Your task to perform on an android device: see creations saved in the google photos Image 0: 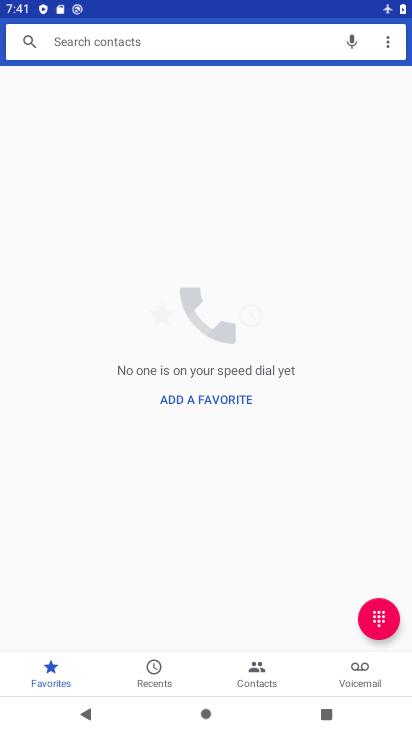
Step 0: press home button
Your task to perform on an android device: see creations saved in the google photos Image 1: 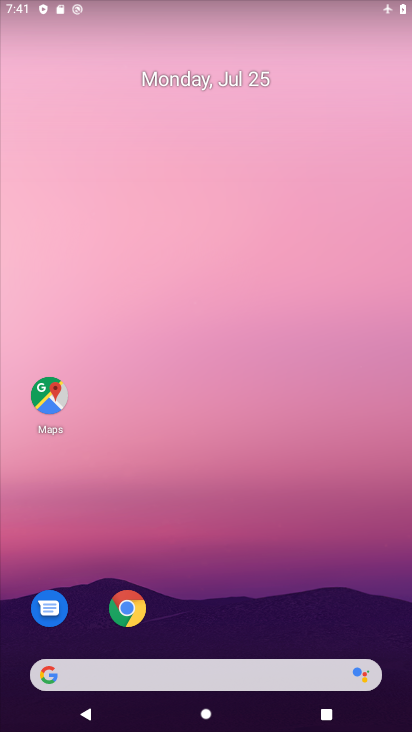
Step 1: drag from (303, 599) to (285, 65)
Your task to perform on an android device: see creations saved in the google photos Image 2: 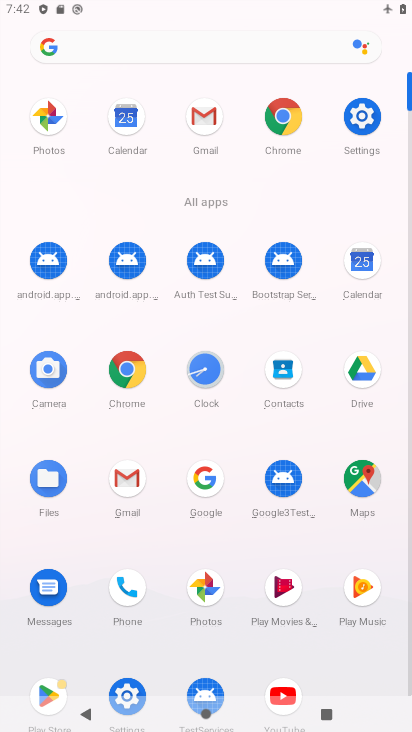
Step 2: click (204, 591)
Your task to perform on an android device: see creations saved in the google photos Image 3: 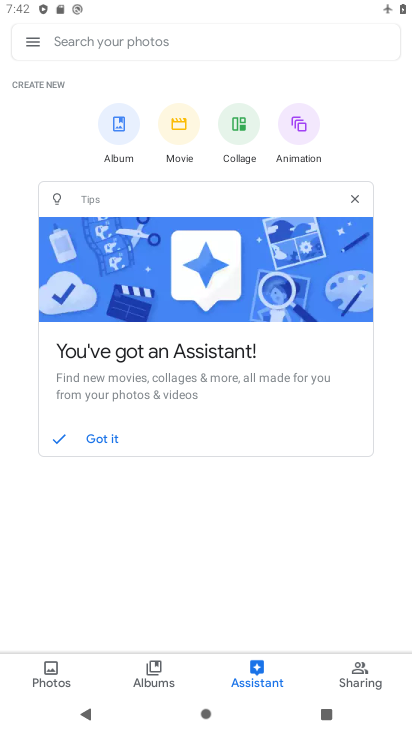
Step 3: click (145, 679)
Your task to perform on an android device: see creations saved in the google photos Image 4: 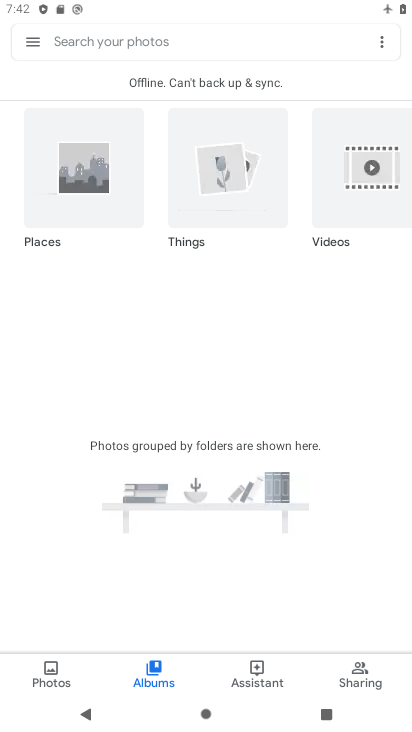
Step 4: click (40, 680)
Your task to perform on an android device: see creations saved in the google photos Image 5: 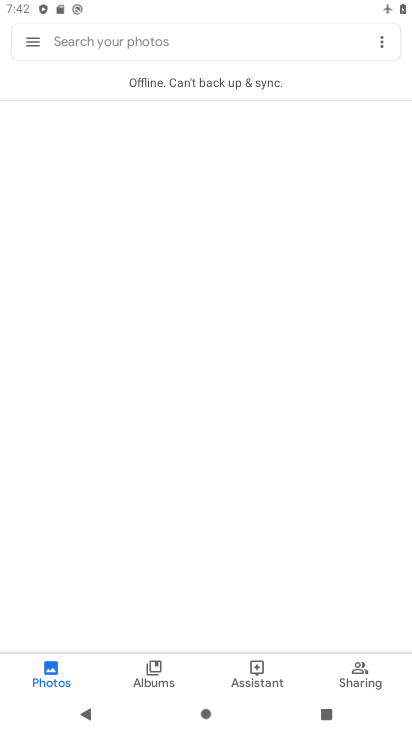
Step 5: task complete